Your task to perform on an android device: Play the last video I watched on Youtube Image 0: 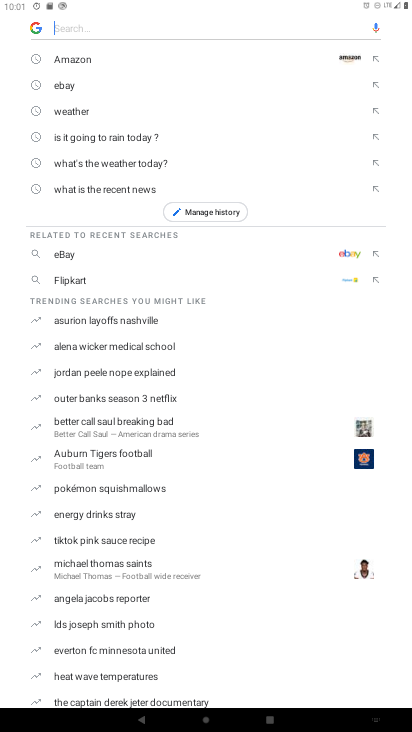
Step 0: press home button
Your task to perform on an android device: Play the last video I watched on Youtube Image 1: 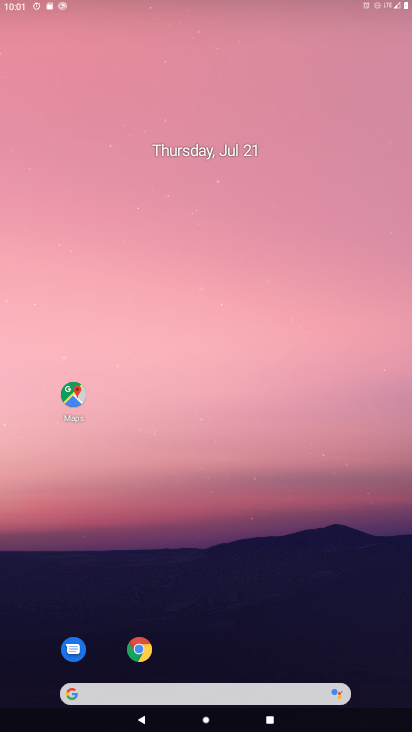
Step 1: drag from (371, 695) to (193, 119)
Your task to perform on an android device: Play the last video I watched on Youtube Image 2: 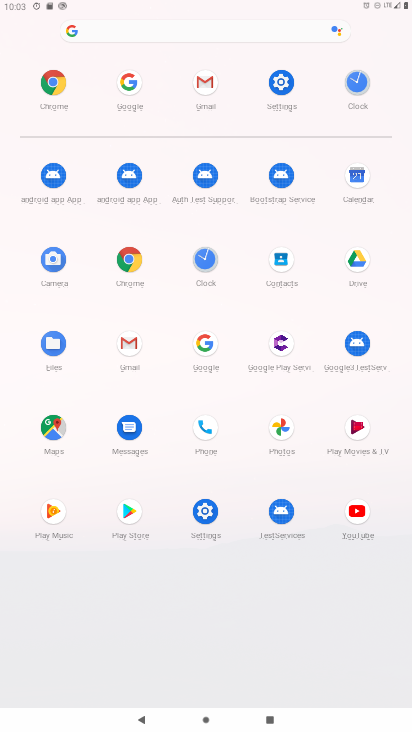
Step 2: click (362, 512)
Your task to perform on an android device: Play the last video I watched on Youtube Image 3: 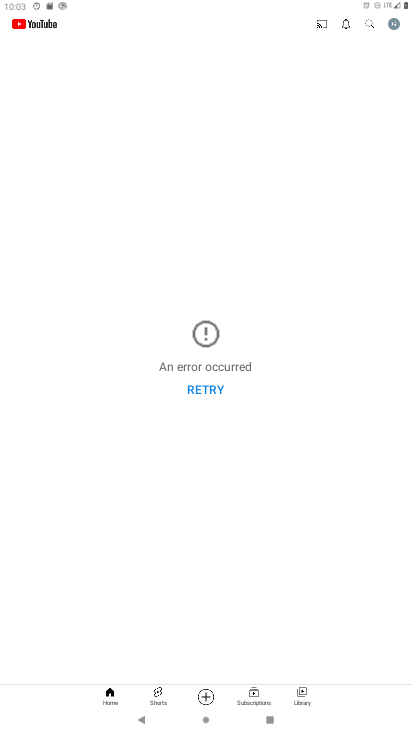
Step 3: task complete